Your task to perform on an android device: check the backup settings in the google photos Image 0: 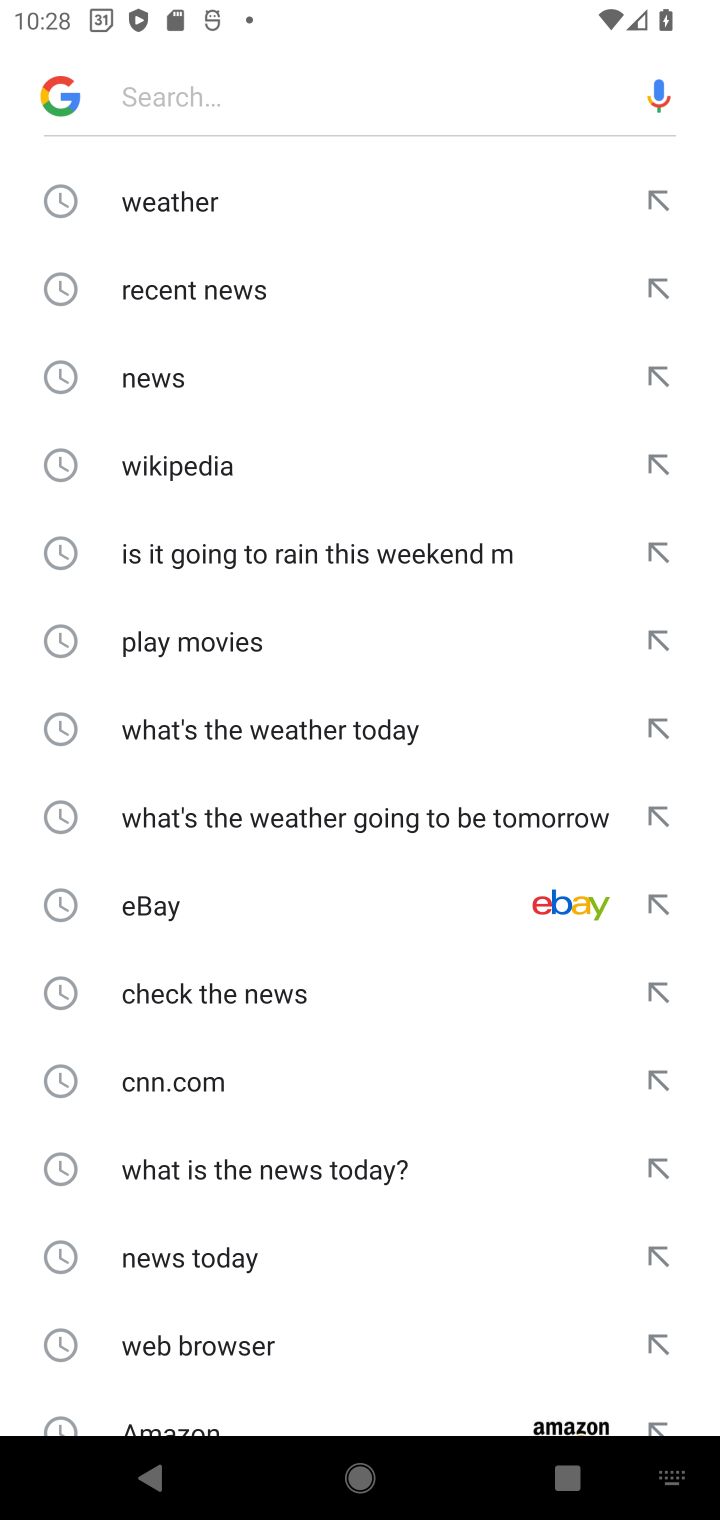
Step 0: press home button
Your task to perform on an android device: check the backup settings in the google photos Image 1: 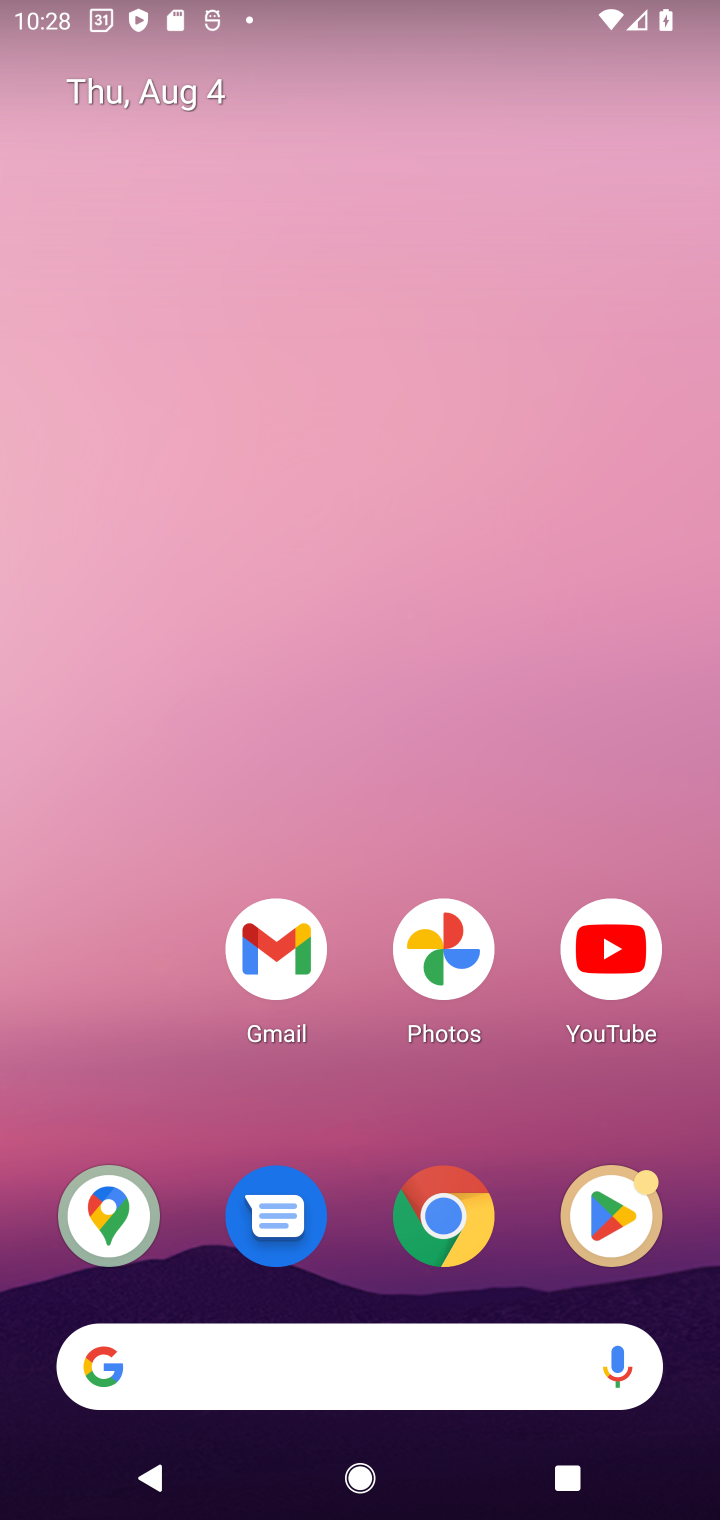
Step 1: drag from (286, 1370) to (383, 462)
Your task to perform on an android device: check the backup settings in the google photos Image 2: 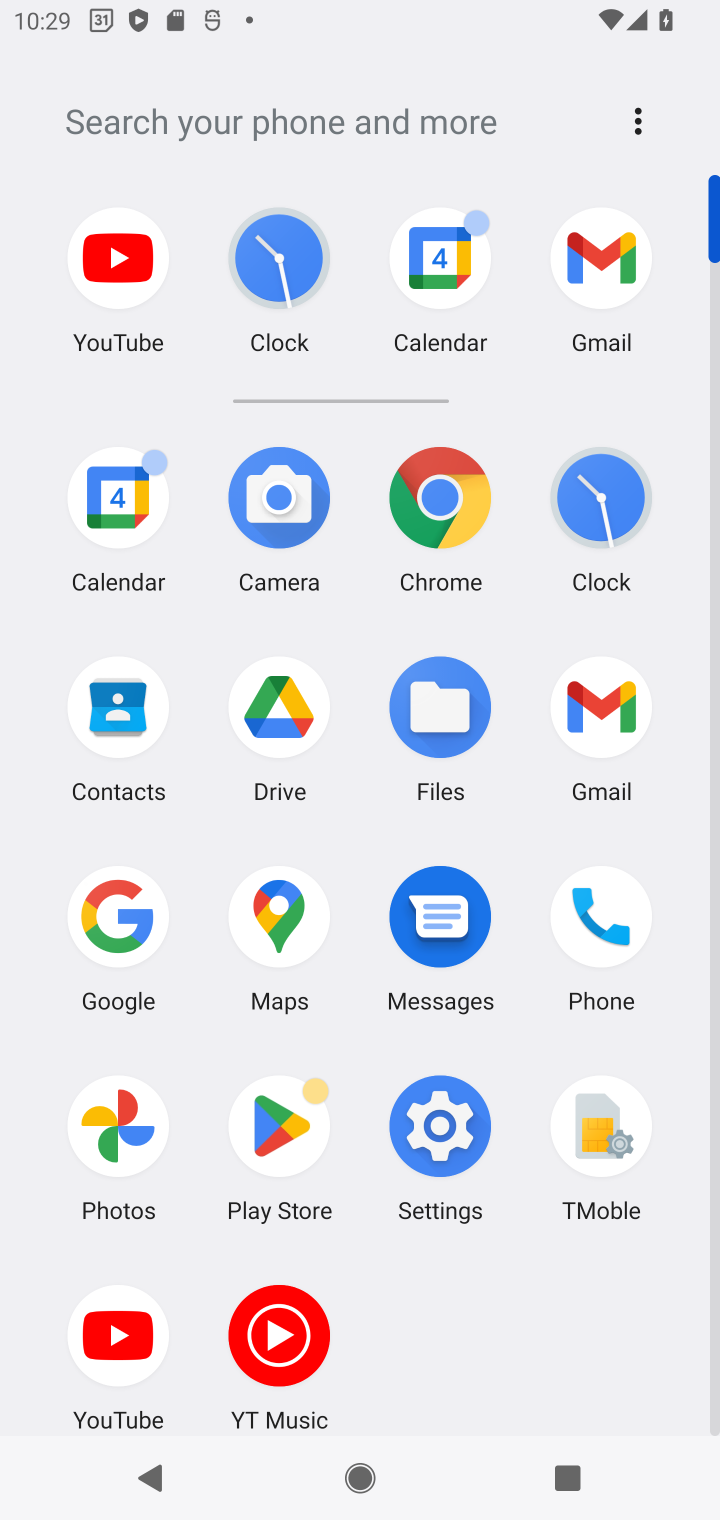
Step 2: click (119, 1128)
Your task to perform on an android device: check the backup settings in the google photos Image 3: 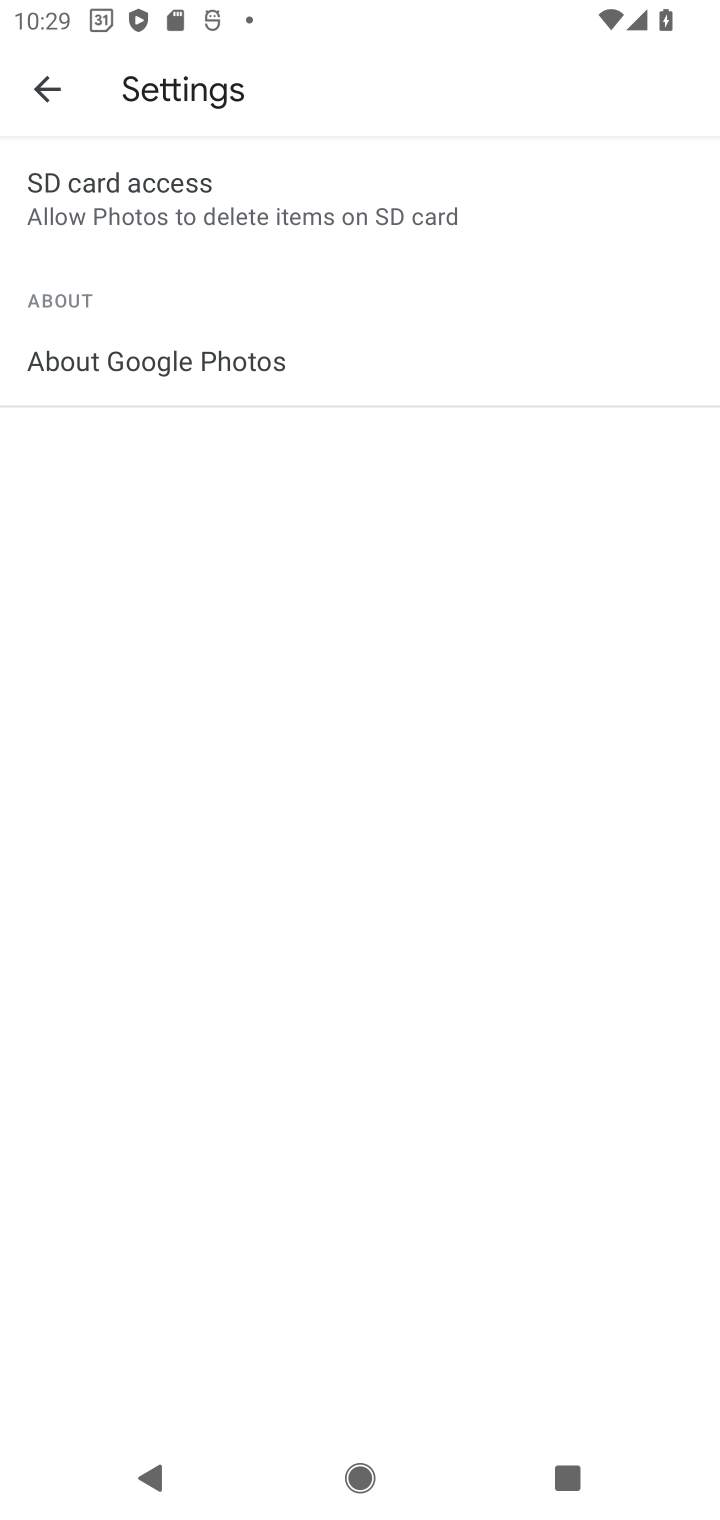
Step 3: press back button
Your task to perform on an android device: check the backup settings in the google photos Image 4: 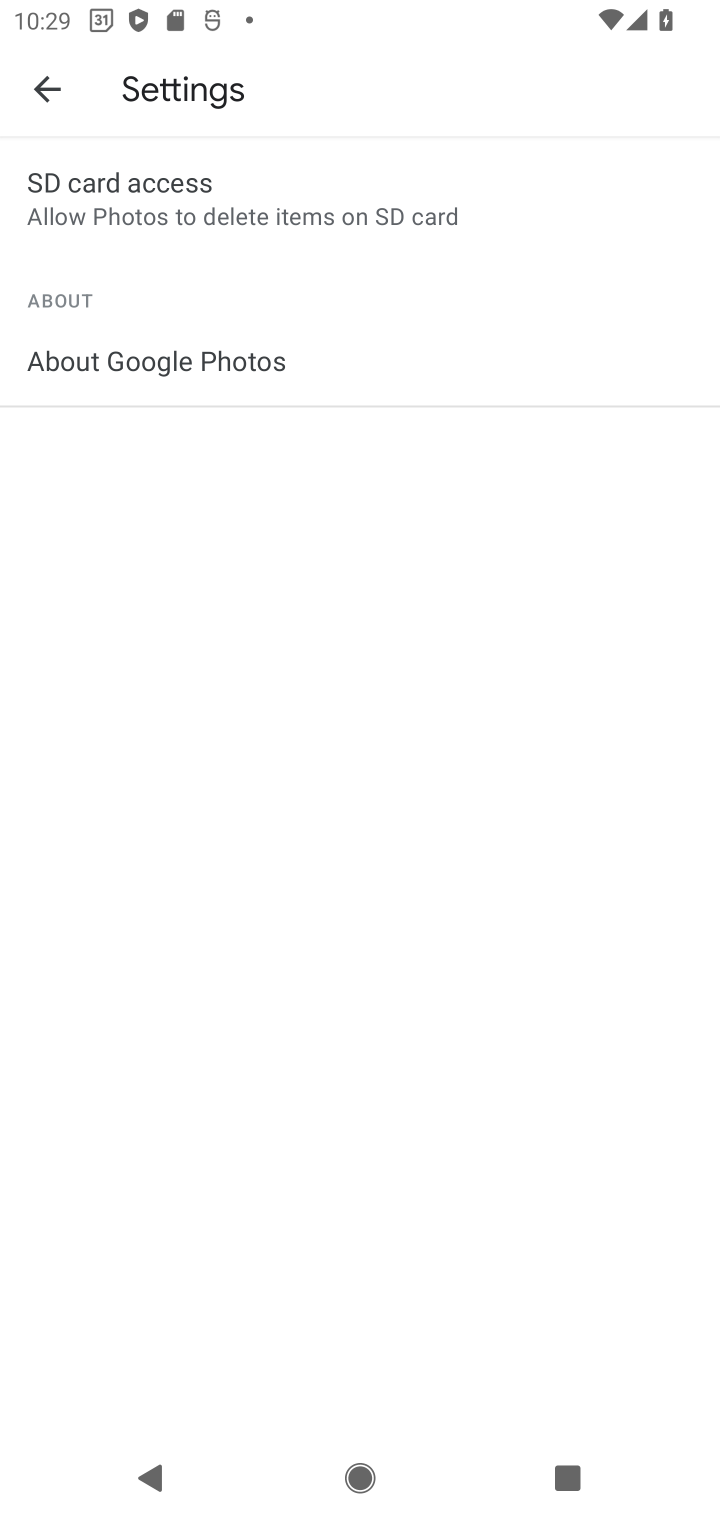
Step 4: press back button
Your task to perform on an android device: check the backup settings in the google photos Image 5: 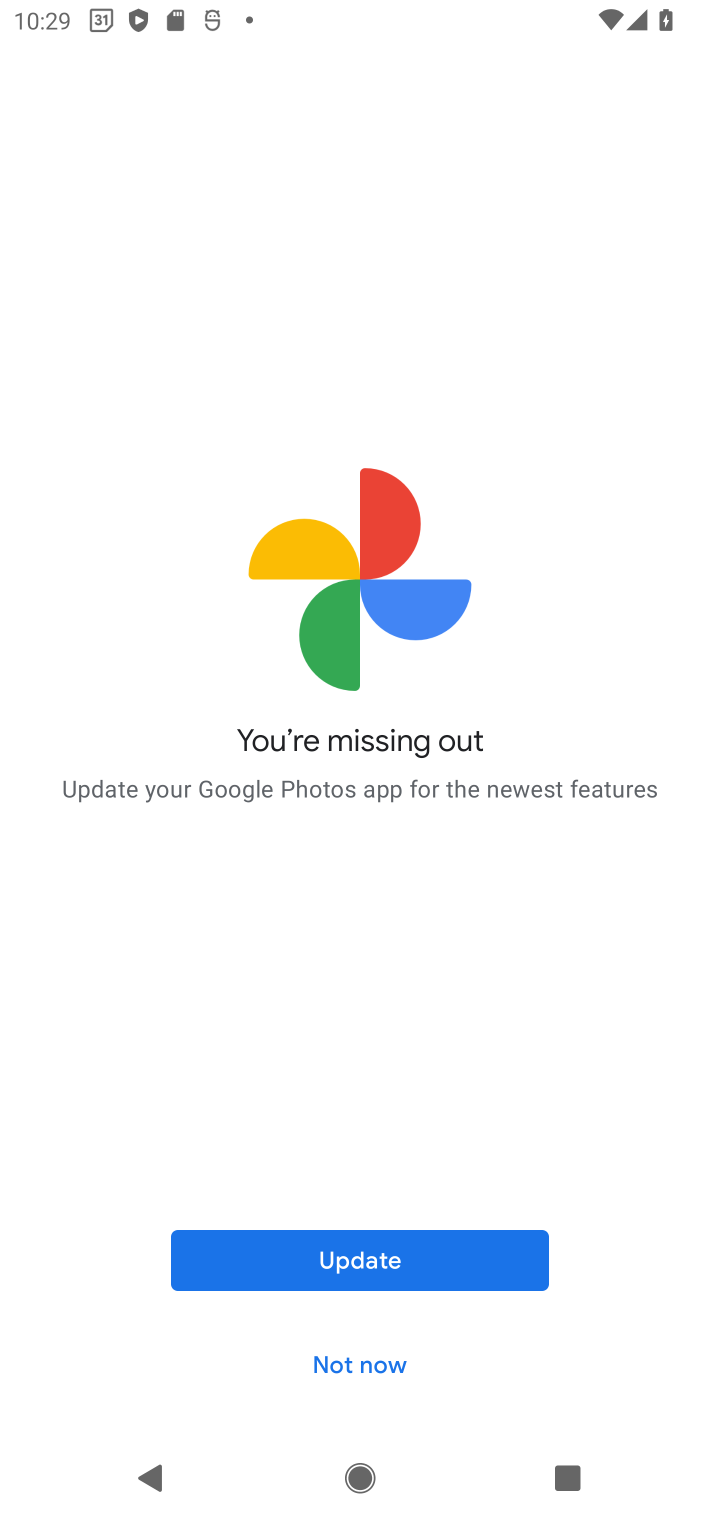
Step 5: click (331, 1264)
Your task to perform on an android device: check the backup settings in the google photos Image 6: 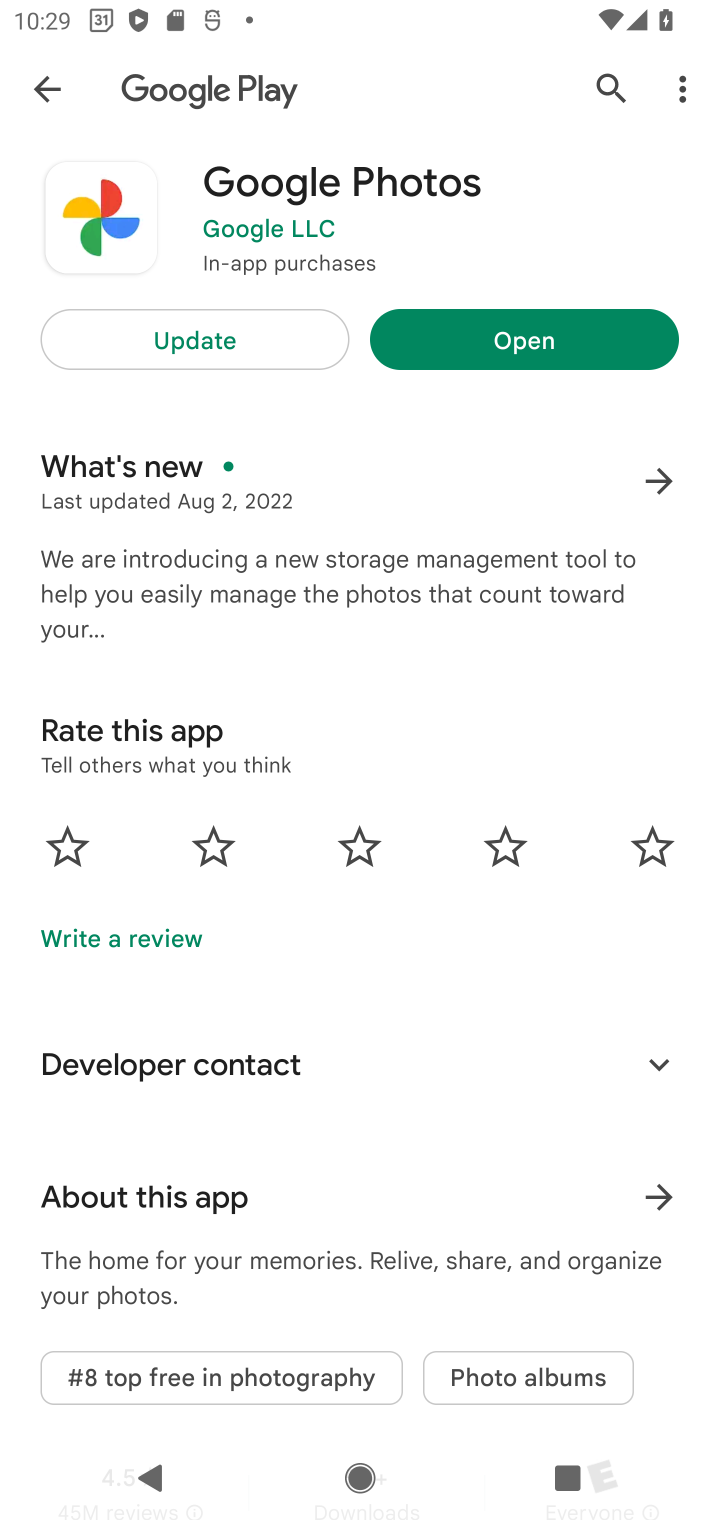
Step 6: click (233, 349)
Your task to perform on an android device: check the backup settings in the google photos Image 7: 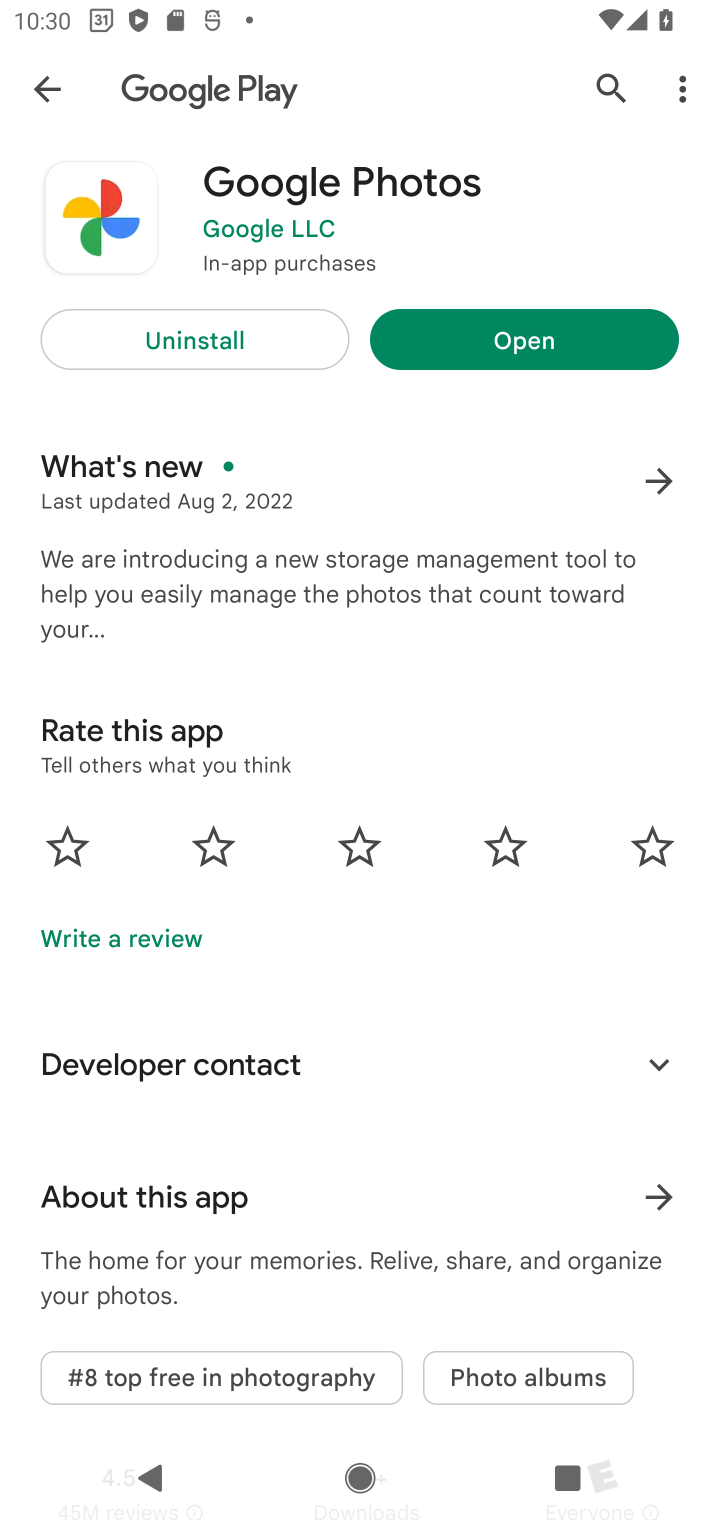
Step 7: click (528, 341)
Your task to perform on an android device: check the backup settings in the google photos Image 8: 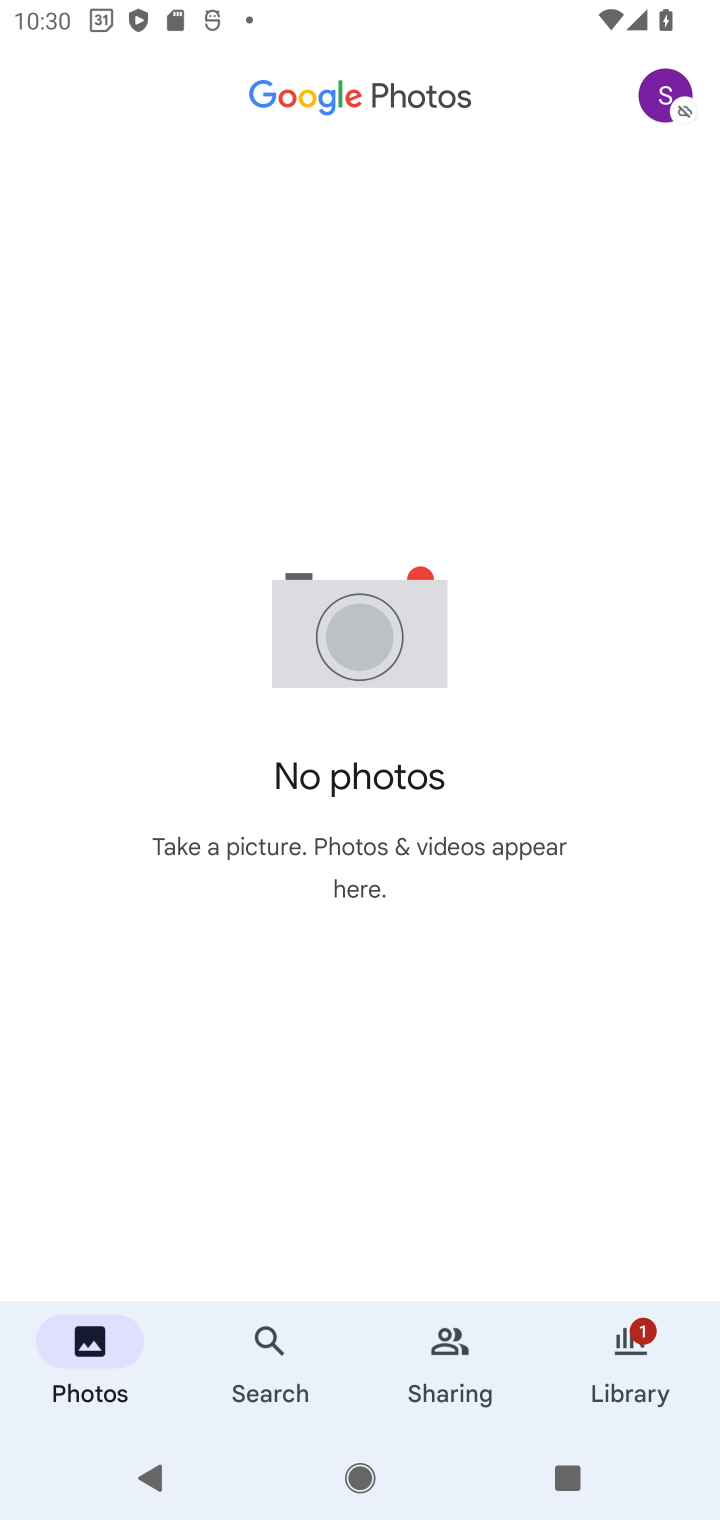
Step 8: click (666, 108)
Your task to perform on an android device: check the backup settings in the google photos Image 9: 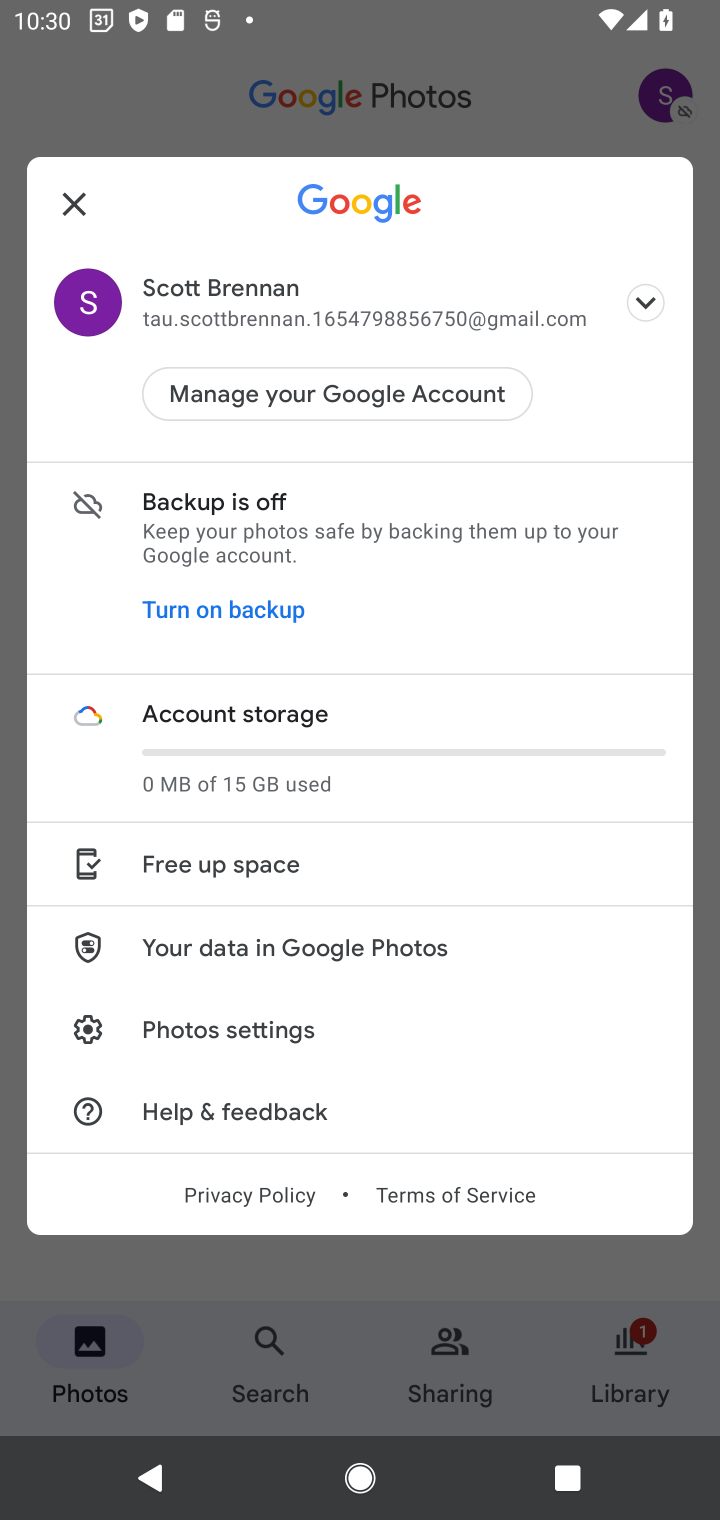
Step 9: click (223, 1028)
Your task to perform on an android device: check the backup settings in the google photos Image 10: 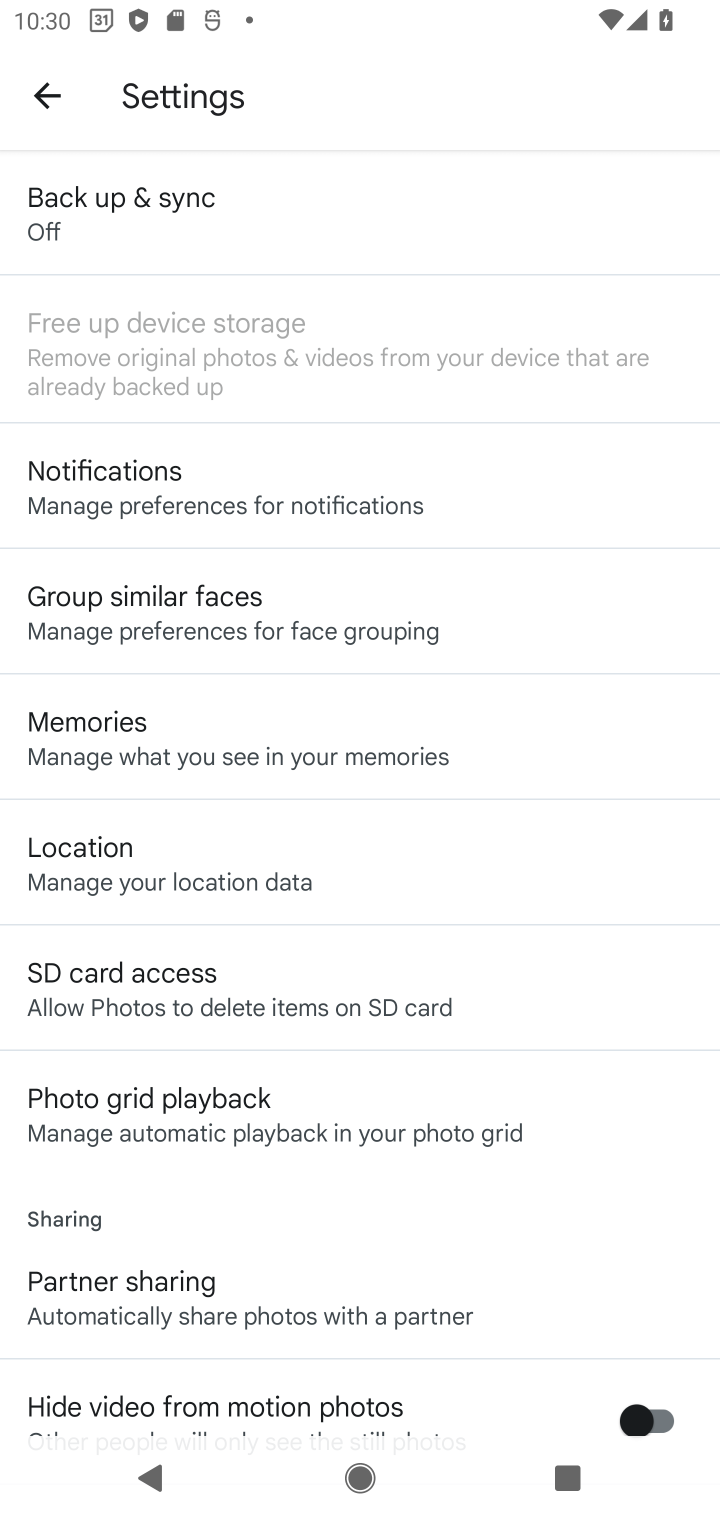
Step 10: click (143, 208)
Your task to perform on an android device: check the backup settings in the google photos Image 11: 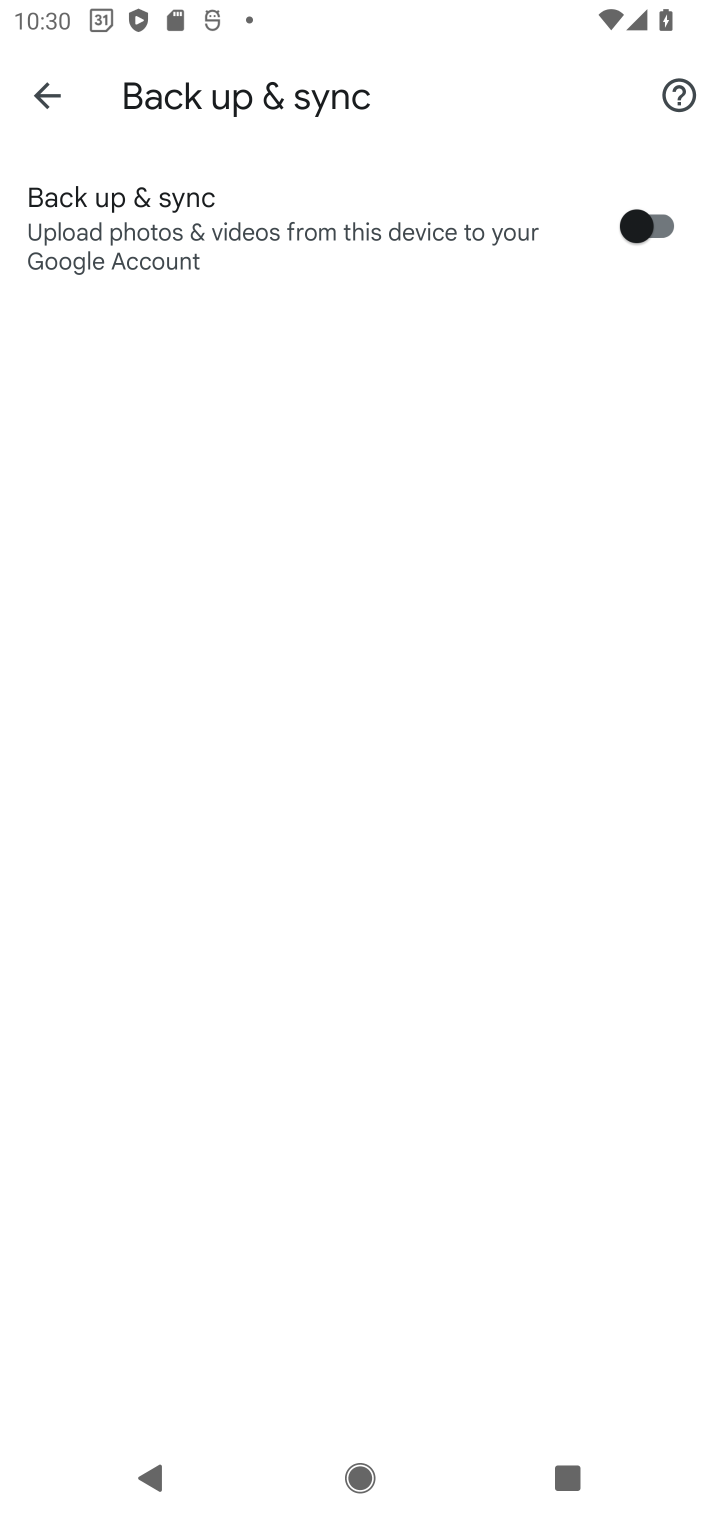
Step 11: task complete